Your task to perform on an android device: turn off wifi Image 0: 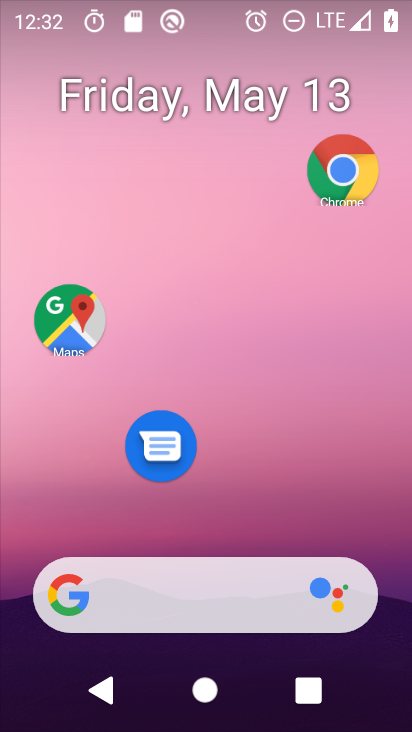
Step 0: drag from (275, 563) to (260, 23)
Your task to perform on an android device: turn off wifi Image 1: 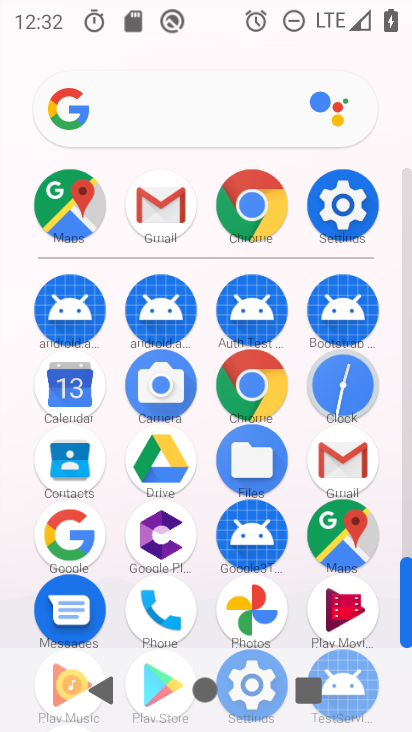
Step 1: click (338, 199)
Your task to perform on an android device: turn off wifi Image 2: 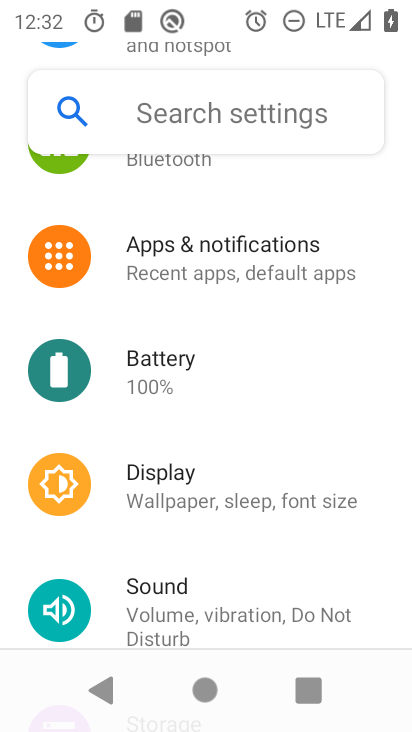
Step 2: drag from (173, 229) to (258, 633)
Your task to perform on an android device: turn off wifi Image 3: 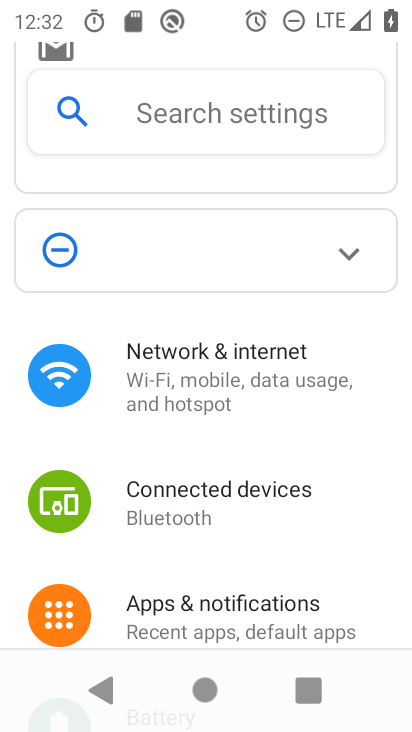
Step 3: click (270, 368)
Your task to perform on an android device: turn off wifi Image 4: 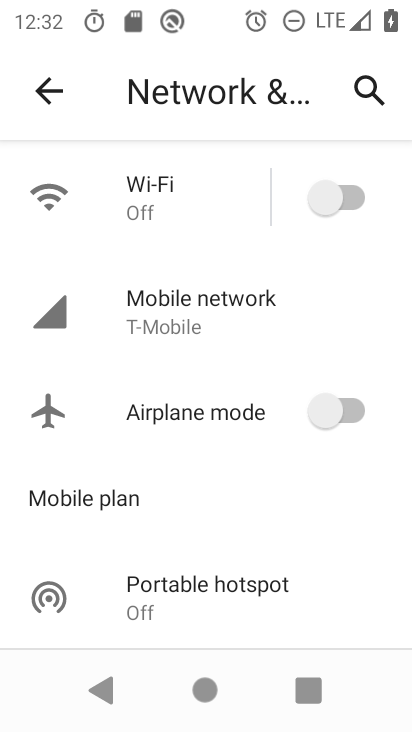
Step 4: task complete